Your task to perform on an android device: turn on improve location accuracy Image 0: 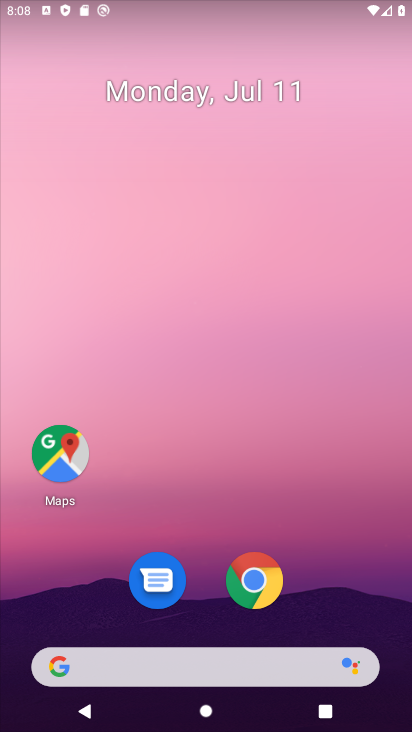
Step 0: drag from (348, 552) to (327, 12)
Your task to perform on an android device: turn on improve location accuracy Image 1: 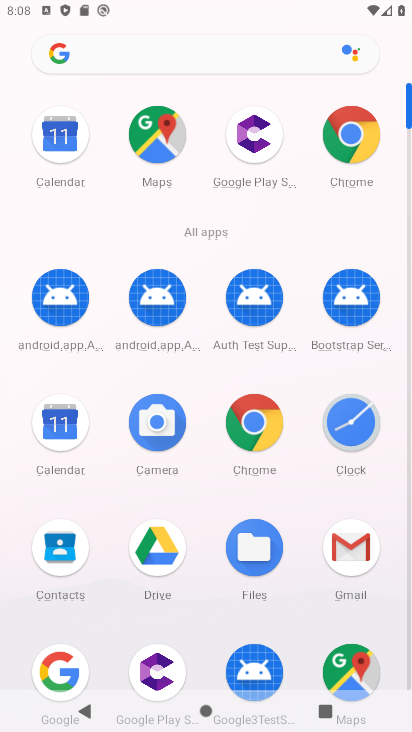
Step 1: drag from (206, 493) to (226, 46)
Your task to perform on an android device: turn on improve location accuracy Image 2: 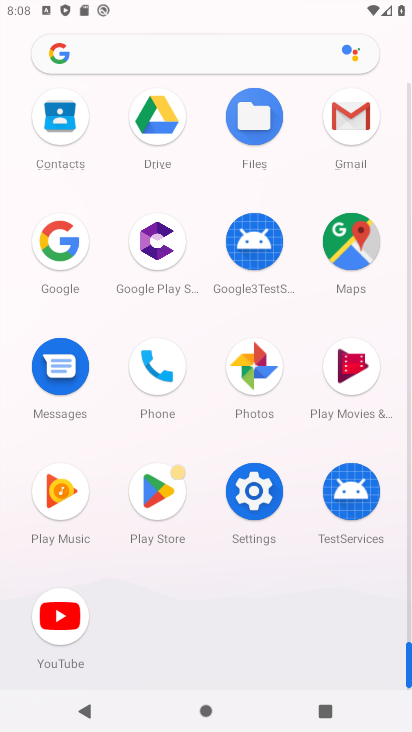
Step 2: click (258, 486)
Your task to perform on an android device: turn on improve location accuracy Image 3: 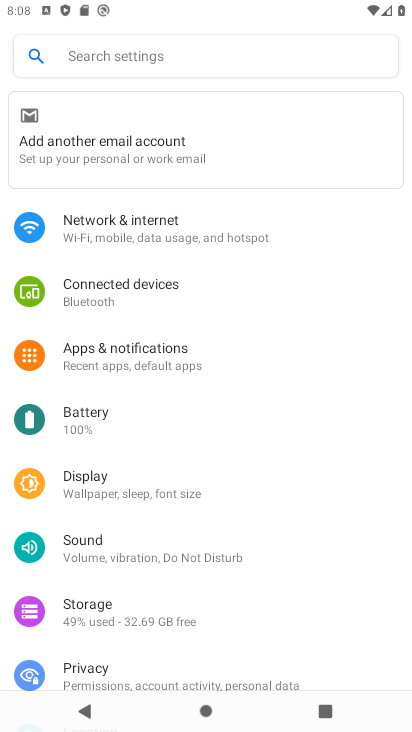
Step 3: drag from (258, 486) to (252, 196)
Your task to perform on an android device: turn on improve location accuracy Image 4: 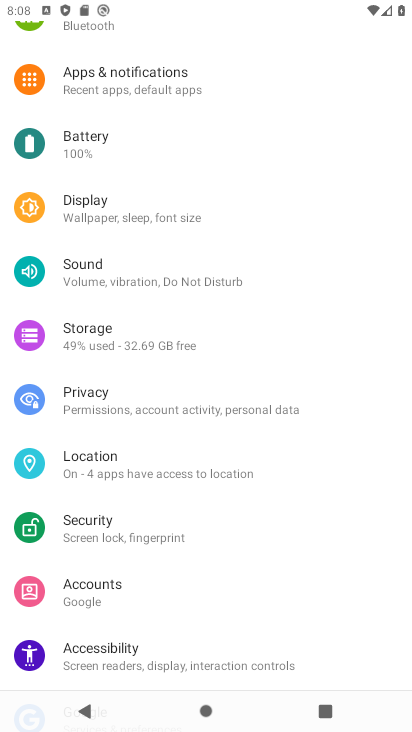
Step 4: click (179, 470)
Your task to perform on an android device: turn on improve location accuracy Image 5: 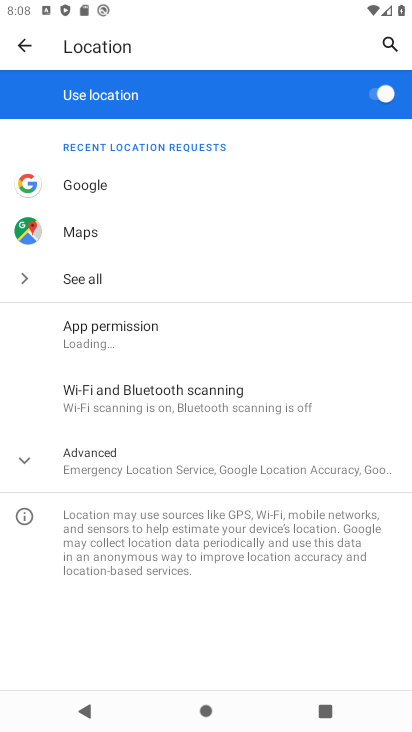
Step 5: click (23, 459)
Your task to perform on an android device: turn on improve location accuracy Image 6: 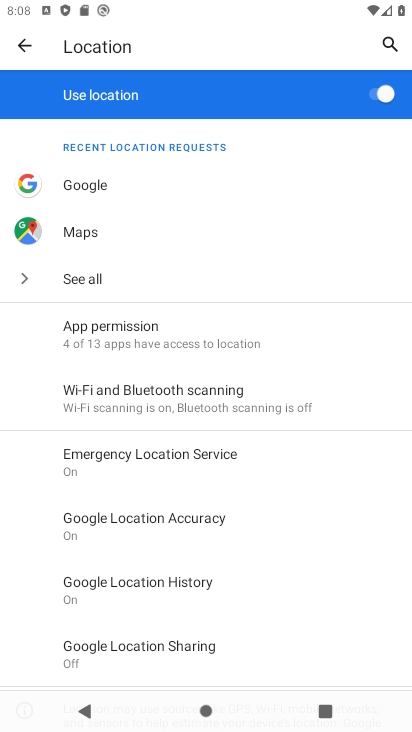
Step 6: click (152, 517)
Your task to perform on an android device: turn on improve location accuracy Image 7: 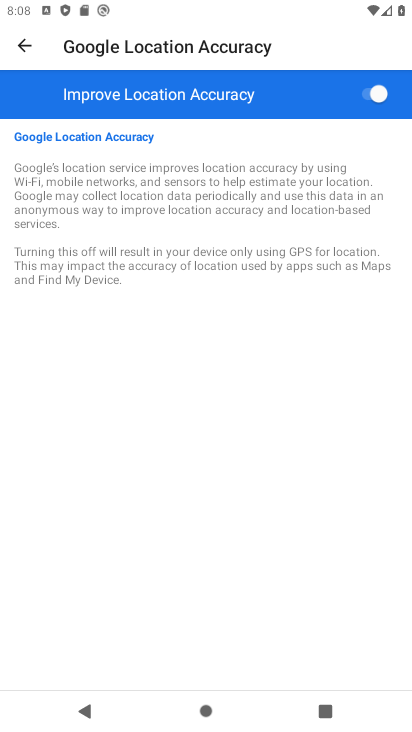
Step 7: task complete